Your task to perform on an android device: toggle improve location accuracy Image 0: 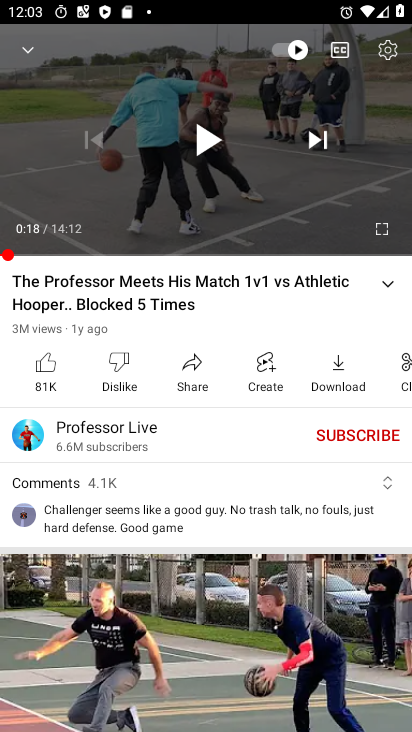
Step 0: press home button
Your task to perform on an android device: toggle improve location accuracy Image 1: 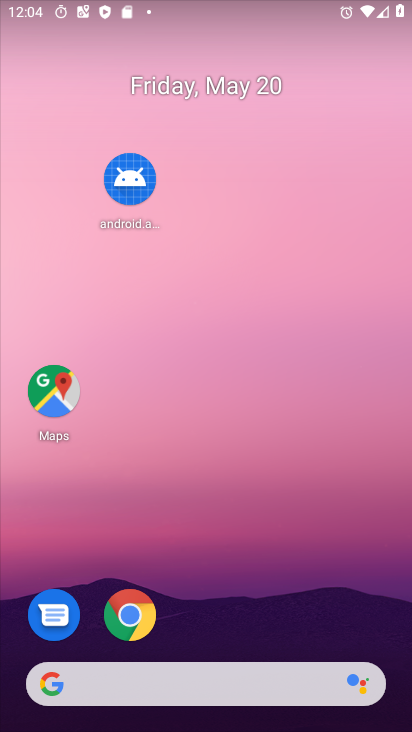
Step 1: drag from (347, 579) to (310, 133)
Your task to perform on an android device: toggle improve location accuracy Image 2: 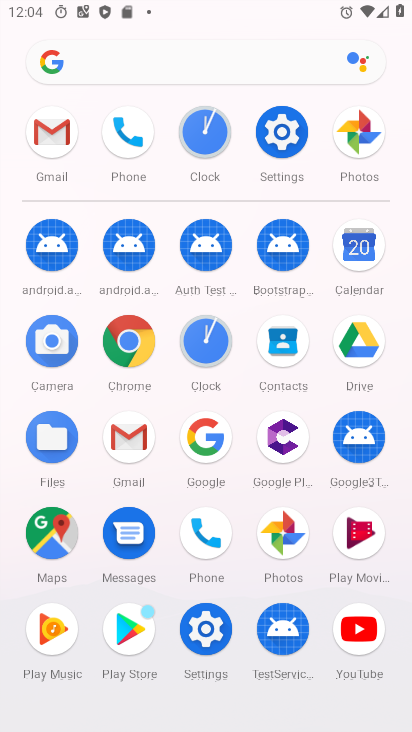
Step 2: click (209, 637)
Your task to perform on an android device: toggle improve location accuracy Image 3: 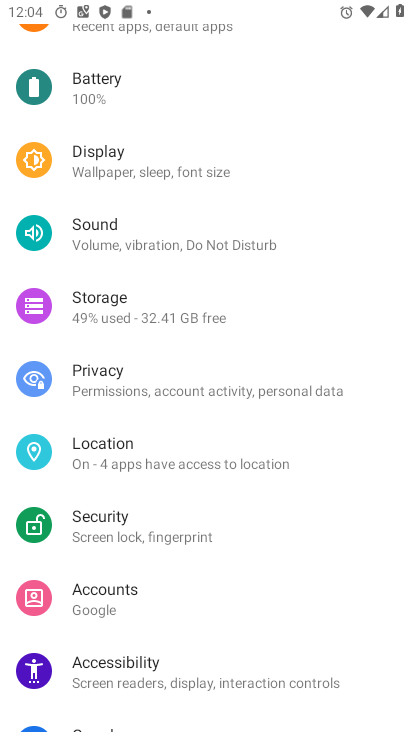
Step 3: click (215, 453)
Your task to perform on an android device: toggle improve location accuracy Image 4: 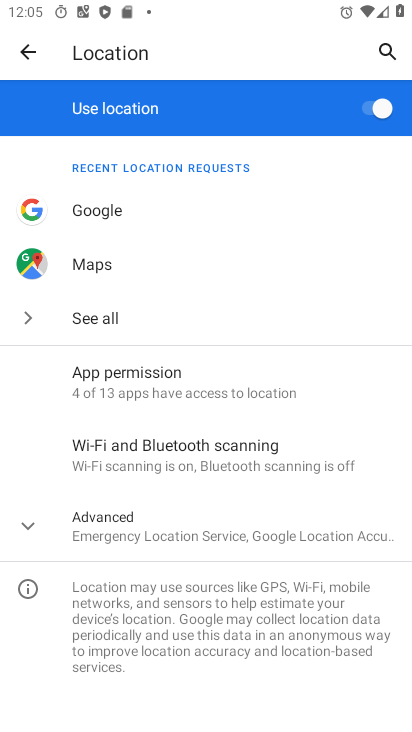
Step 4: click (154, 513)
Your task to perform on an android device: toggle improve location accuracy Image 5: 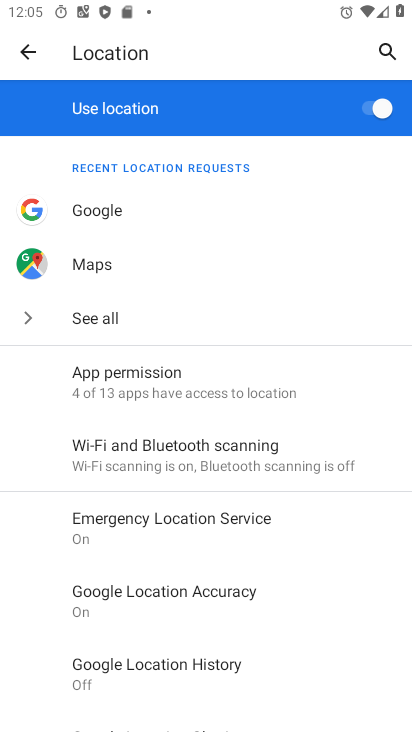
Step 5: click (244, 594)
Your task to perform on an android device: toggle improve location accuracy Image 6: 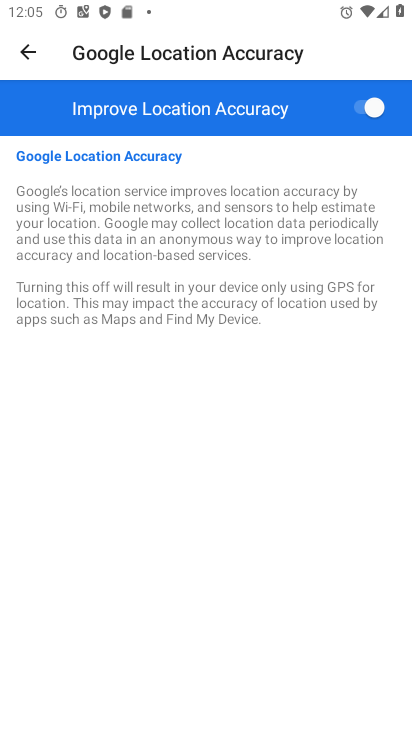
Step 6: click (378, 102)
Your task to perform on an android device: toggle improve location accuracy Image 7: 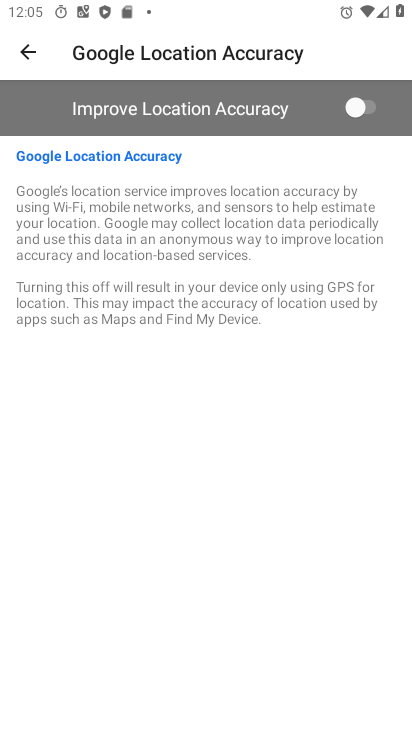
Step 7: task complete